Your task to perform on an android device: turn off priority inbox in the gmail app Image 0: 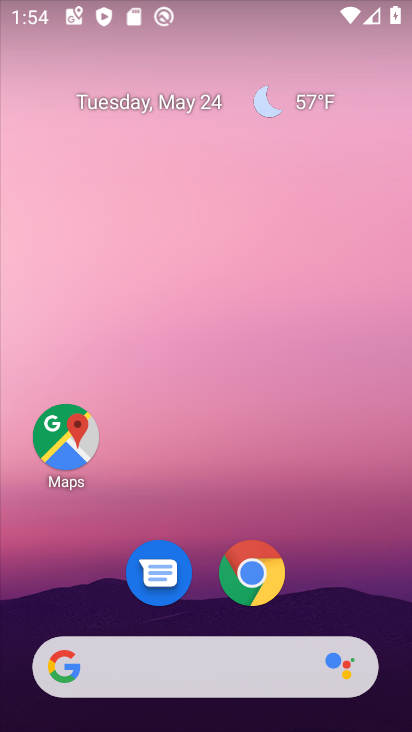
Step 0: drag from (348, 577) to (345, 136)
Your task to perform on an android device: turn off priority inbox in the gmail app Image 1: 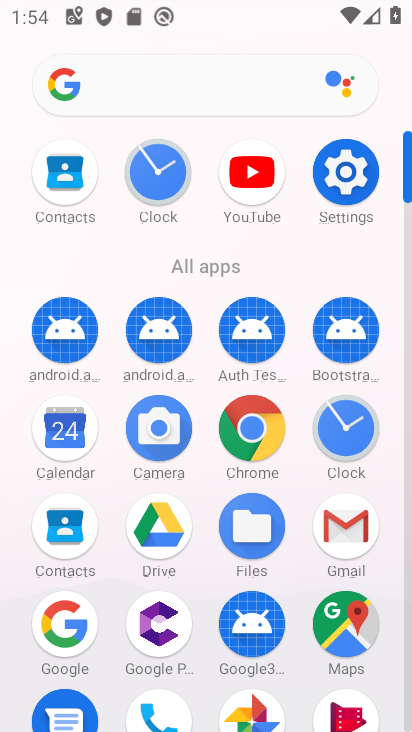
Step 1: click (339, 524)
Your task to perform on an android device: turn off priority inbox in the gmail app Image 2: 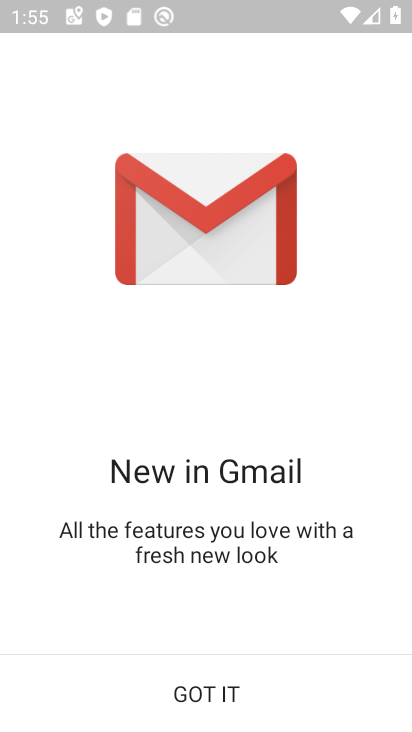
Step 2: click (250, 693)
Your task to perform on an android device: turn off priority inbox in the gmail app Image 3: 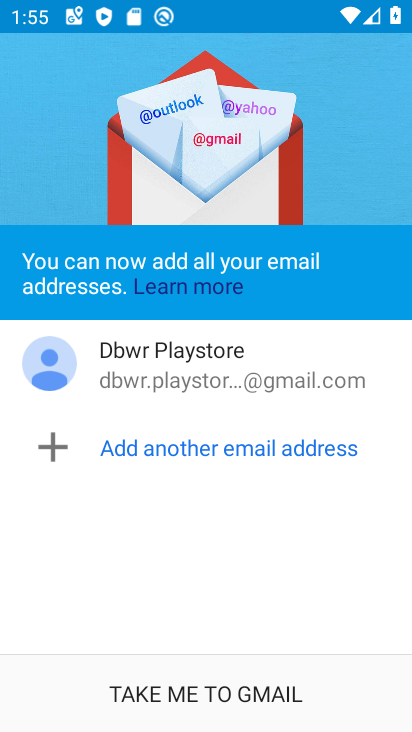
Step 3: click (241, 678)
Your task to perform on an android device: turn off priority inbox in the gmail app Image 4: 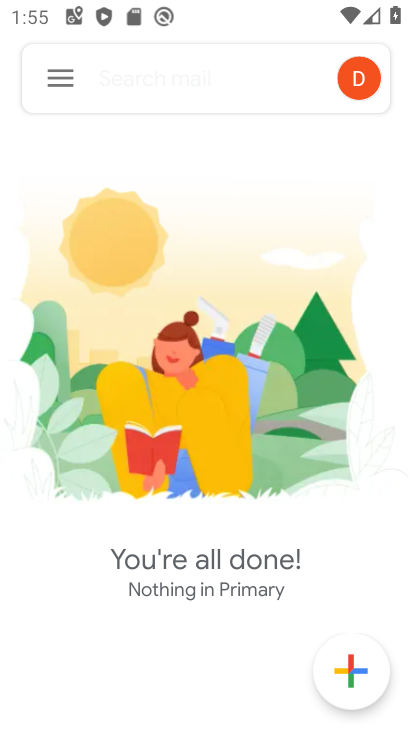
Step 4: click (73, 72)
Your task to perform on an android device: turn off priority inbox in the gmail app Image 5: 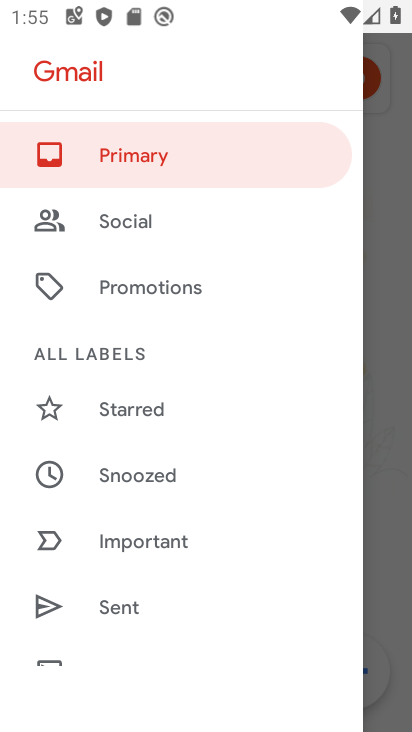
Step 5: drag from (208, 575) to (192, 195)
Your task to perform on an android device: turn off priority inbox in the gmail app Image 6: 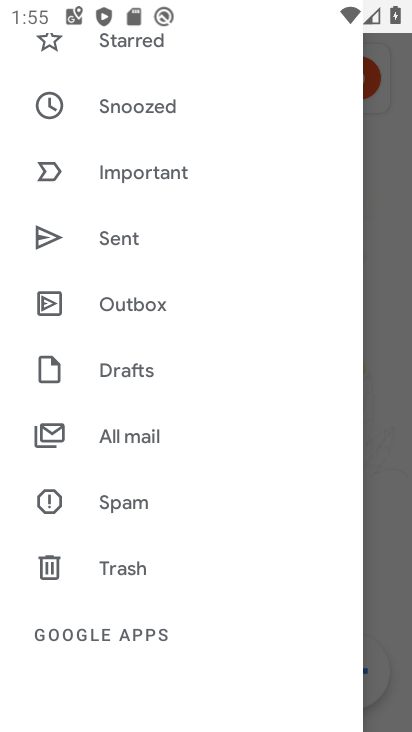
Step 6: drag from (184, 671) to (174, 267)
Your task to perform on an android device: turn off priority inbox in the gmail app Image 7: 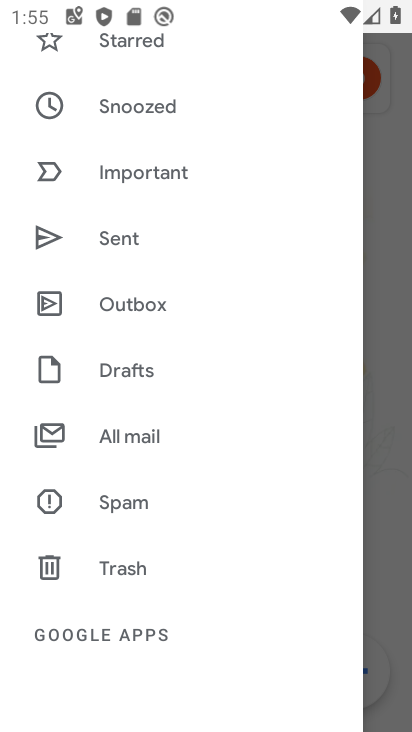
Step 7: drag from (137, 625) to (171, 282)
Your task to perform on an android device: turn off priority inbox in the gmail app Image 8: 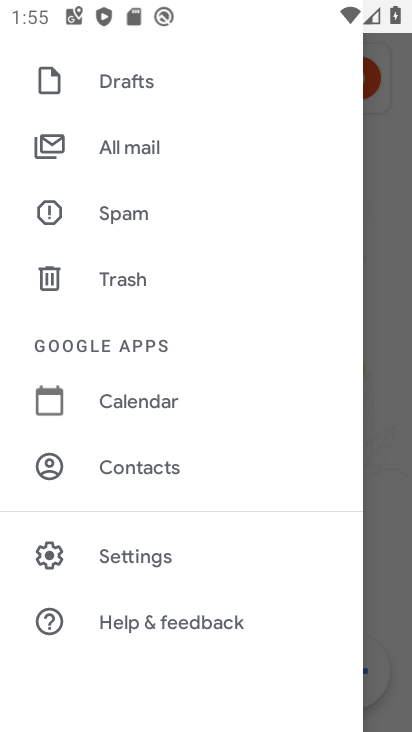
Step 8: click (170, 557)
Your task to perform on an android device: turn off priority inbox in the gmail app Image 9: 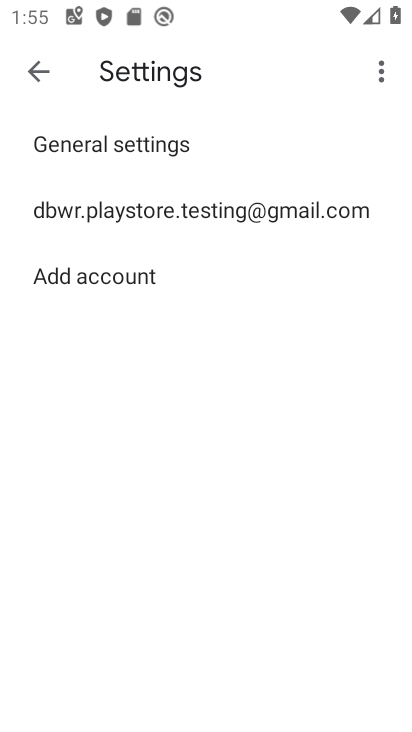
Step 9: click (181, 208)
Your task to perform on an android device: turn off priority inbox in the gmail app Image 10: 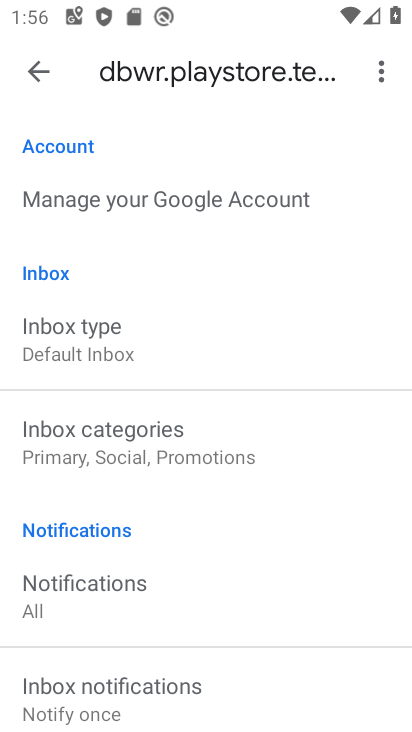
Step 10: task complete